Your task to perform on an android device: clear all cookies in the chrome app Image 0: 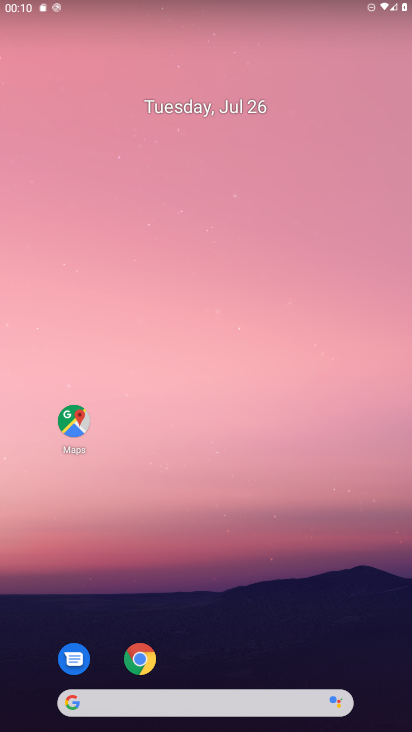
Step 0: press home button
Your task to perform on an android device: clear all cookies in the chrome app Image 1: 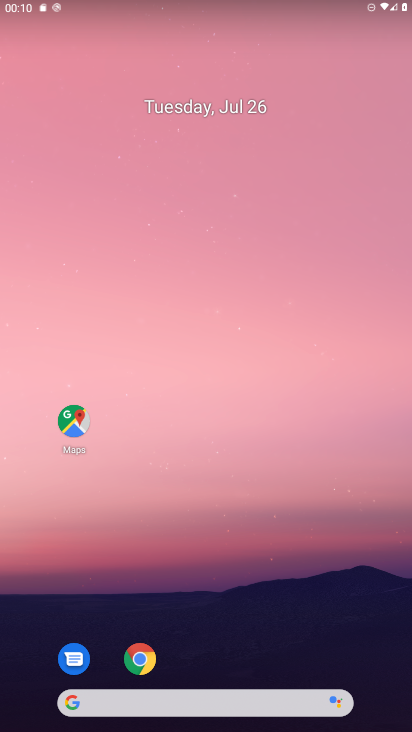
Step 1: drag from (352, 647) to (276, 73)
Your task to perform on an android device: clear all cookies in the chrome app Image 2: 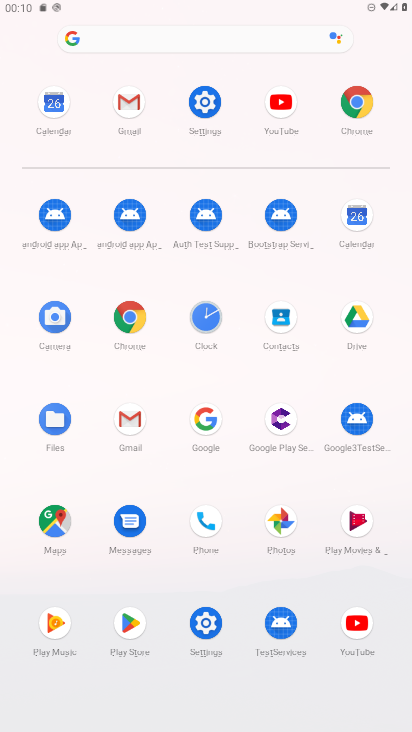
Step 2: click (133, 339)
Your task to perform on an android device: clear all cookies in the chrome app Image 3: 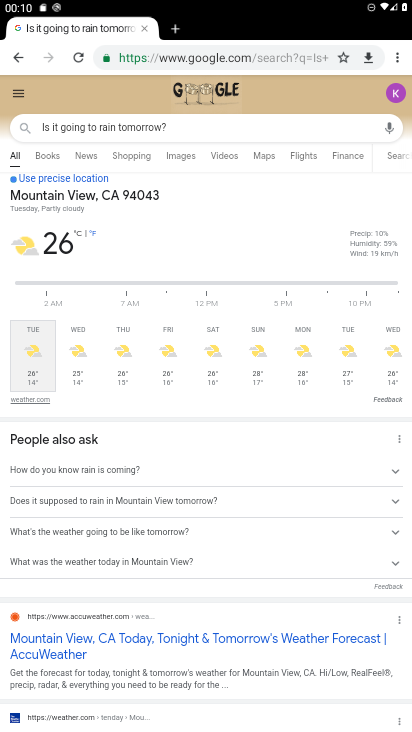
Step 3: drag from (392, 53) to (280, 385)
Your task to perform on an android device: clear all cookies in the chrome app Image 4: 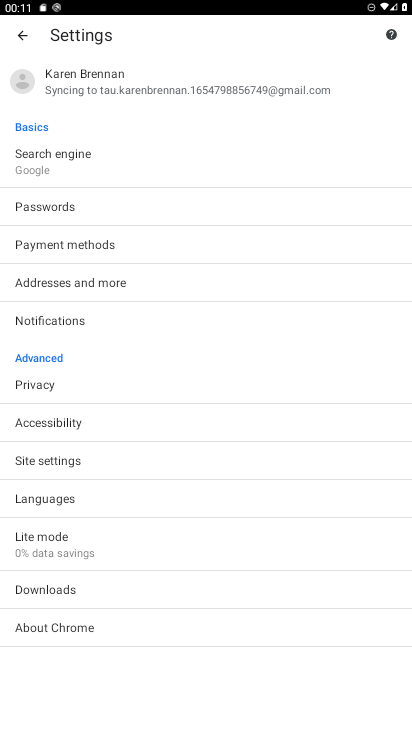
Step 4: click (126, 390)
Your task to perform on an android device: clear all cookies in the chrome app Image 5: 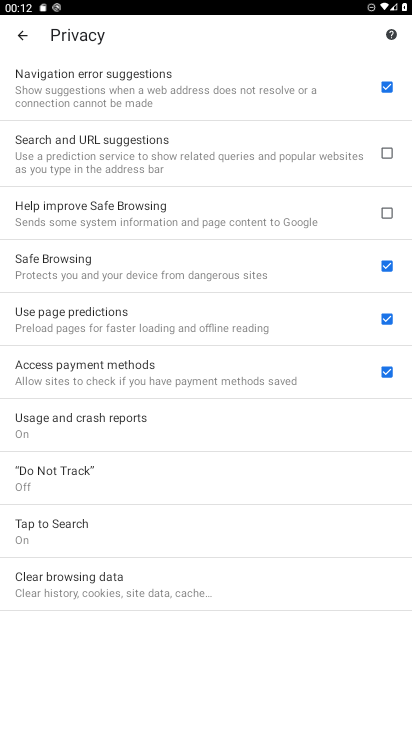
Step 5: click (122, 582)
Your task to perform on an android device: clear all cookies in the chrome app Image 6: 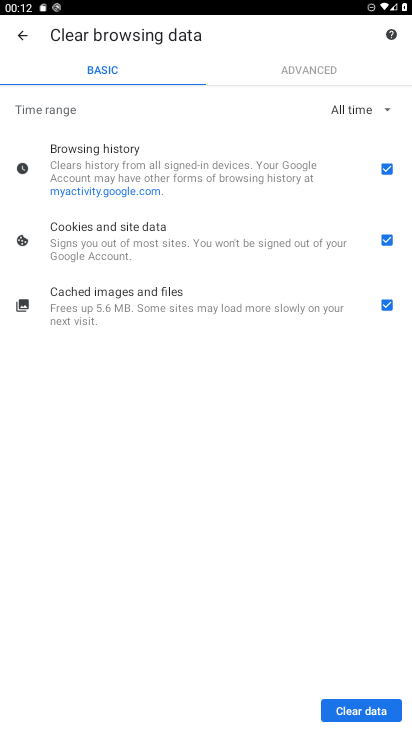
Step 6: click (368, 701)
Your task to perform on an android device: clear all cookies in the chrome app Image 7: 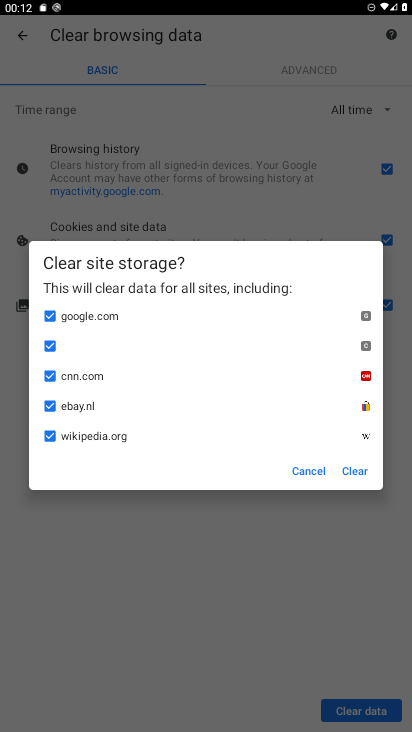
Step 7: click (356, 473)
Your task to perform on an android device: clear all cookies in the chrome app Image 8: 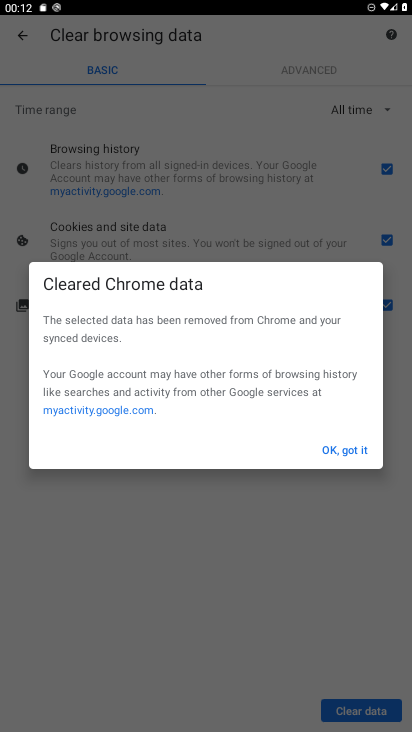
Step 8: click (358, 455)
Your task to perform on an android device: clear all cookies in the chrome app Image 9: 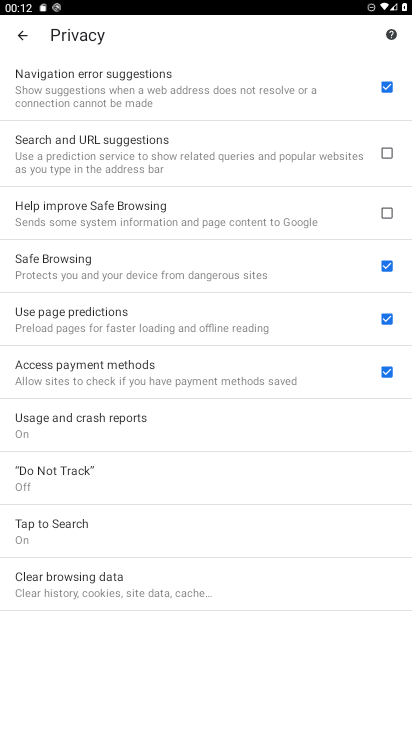
Step 9: task complete